Your task to perform on an android device: allow cookies in the chrome app Image 0: 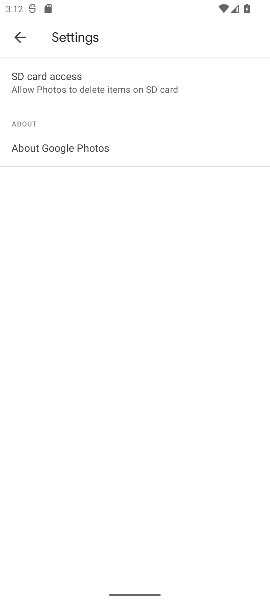
Step 0: press home button
Your task to perform on an android device: allow cookies in the chrome app Image 1: 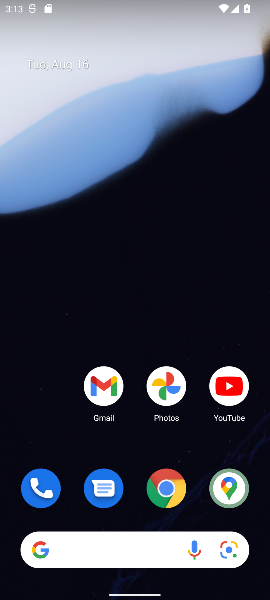
Step 1: click (161, 485)
Your task to perform on an android device: allow cookies in the chrome app Image 2: 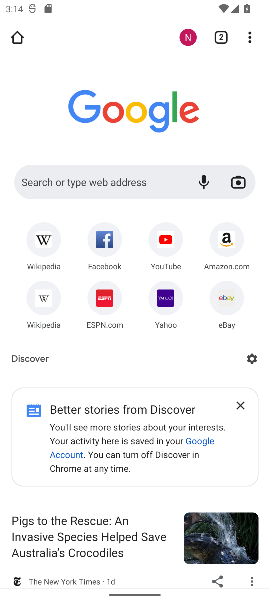
Step 2: task complete